Your task to perform on an android device: Go to sound settings Image 0: 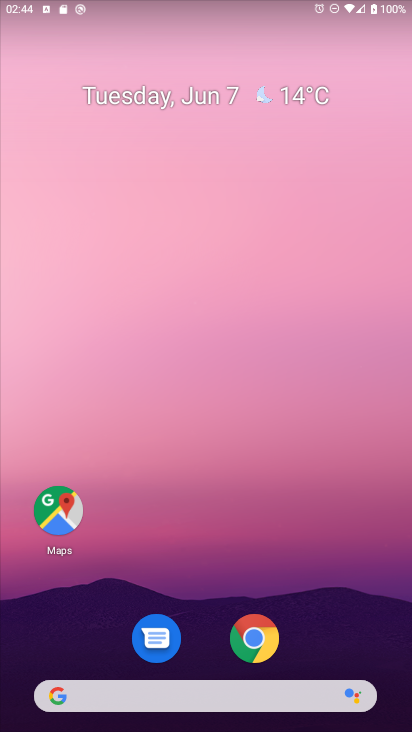
Step 0: press home button
Your task to perform on an android device: Go to sound settings Image 1: 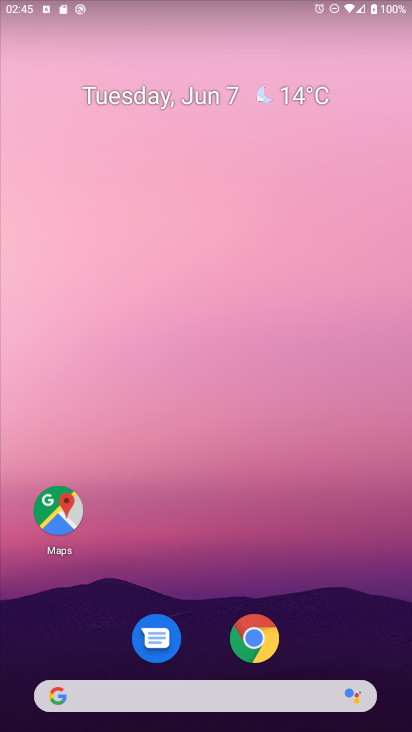
Step 1: drag from (218, 705) to (228, 188)
Your task to perform on an android device: Go to sound settings Image 2: 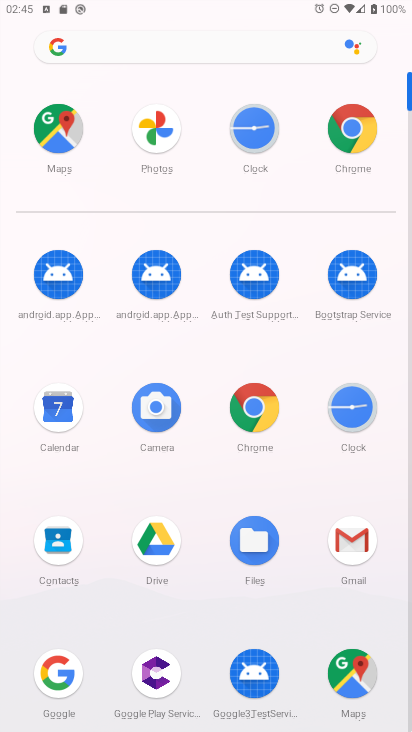
Step 2: drag from (214, 627) to (225, 400)
Your task to perform on an android device: Go to sound settings Image 3: 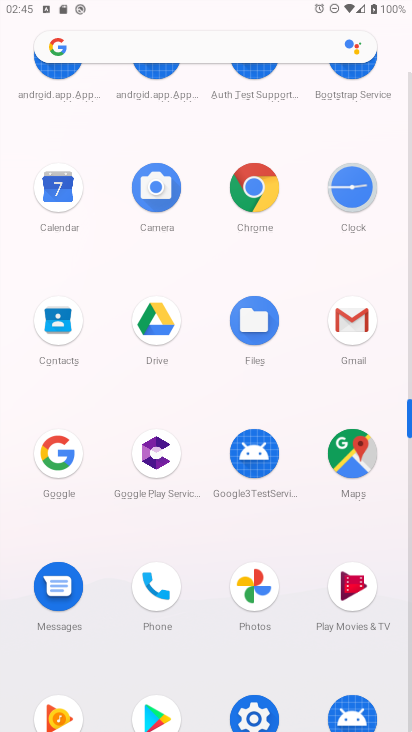
Step 3: click (250, 701)
Your task to perform on an android device: Go to sound settings Image 4: 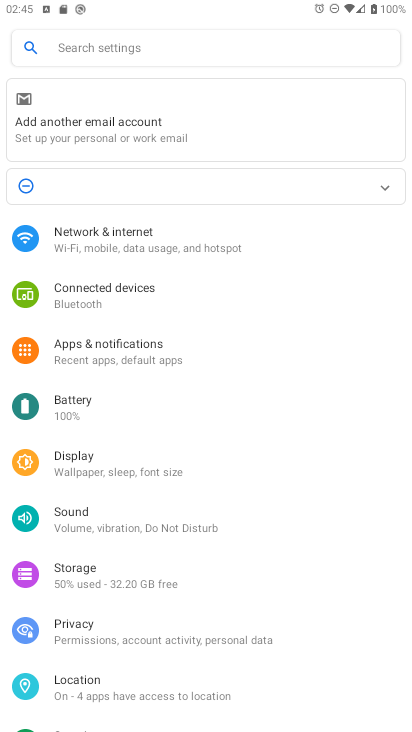
Step 4: click (136, 49)
Your task to perform on an android device: Go to sound settings Image 5: 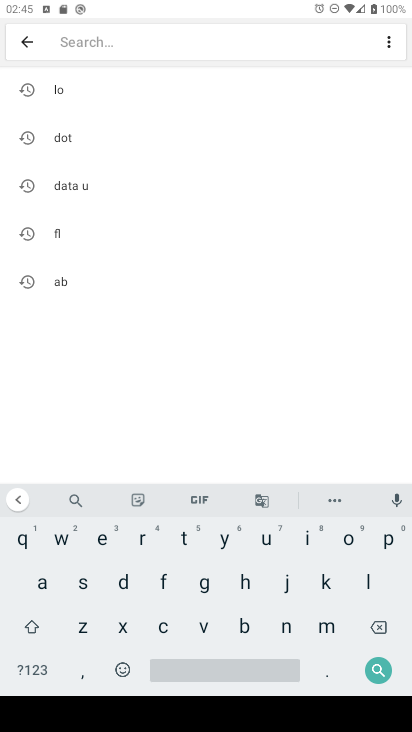
Step 5: click (81, 587)
Your task to perform on an android device: Go to sound settings Image 6: 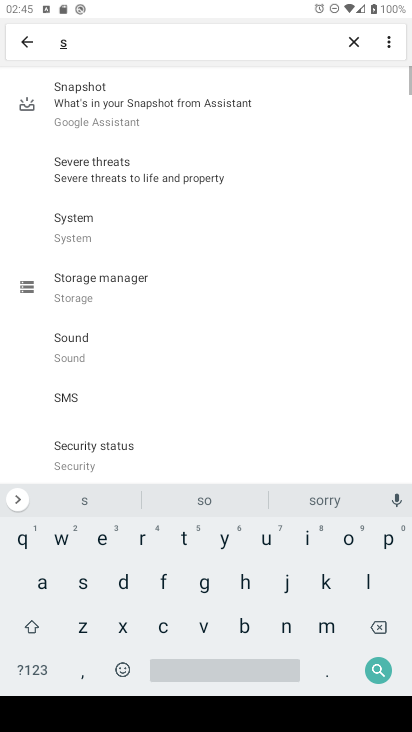
Step 6: click (343, 537)
Your task to perform on an android device: Go to sound settings Image 7: 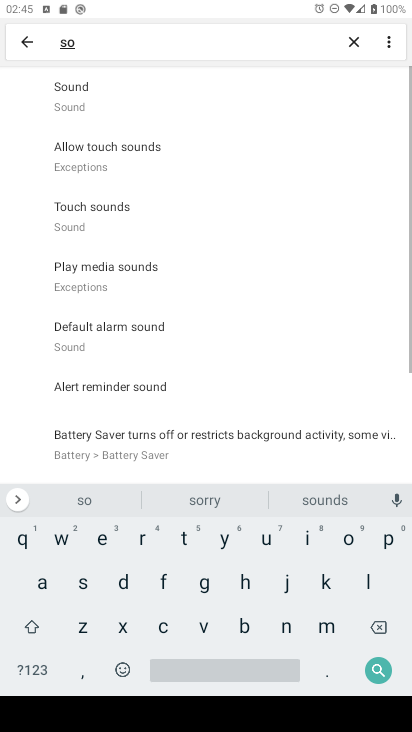
Step 7: click (110, 93)
Your task to perform on an android device: Go to sound settings Image 8: 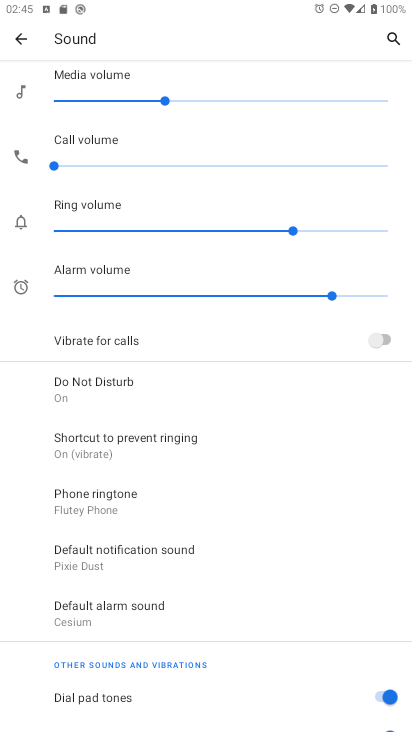
Step 8: task complete